Your task to perform on an android device: set default search engine in the chrome app Image 0: 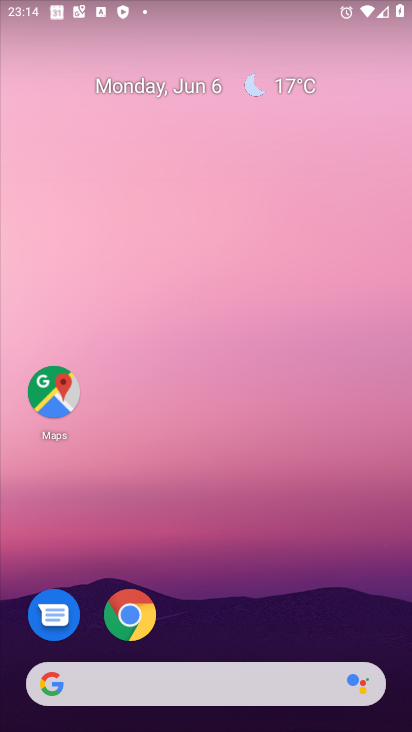
Step 0: click (119, 606)
Your task to perform on an android device: set default search engine in the chrome app Image 1: 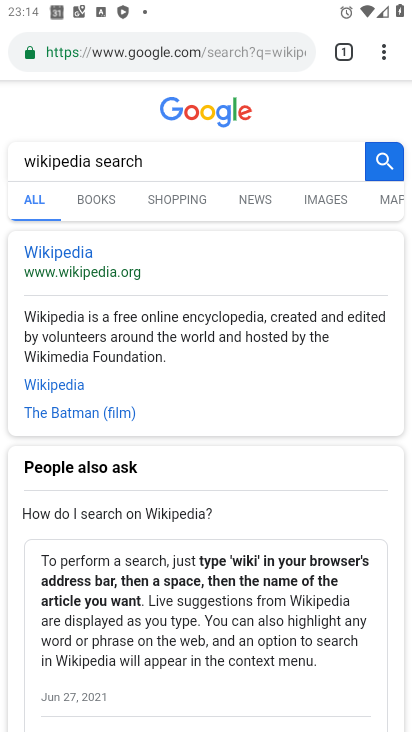
Step 1: click (379, 48)
Your task to perform on an android device: set default search engine in the chrome app Image 2: 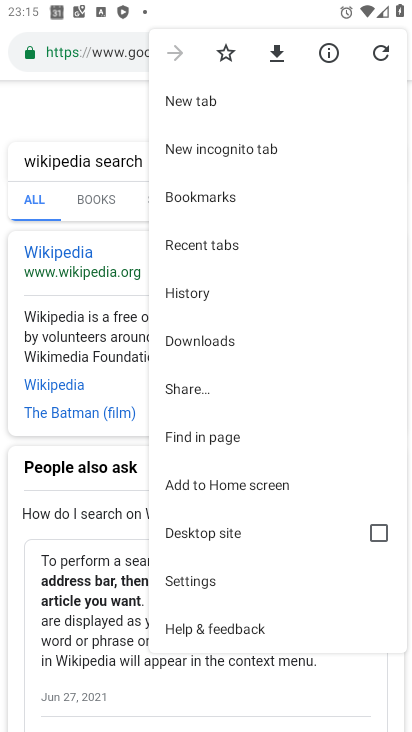
Step 2: click (207, 577)
Your task to perform on an android device: set default search engine in the chrome app Image 3: 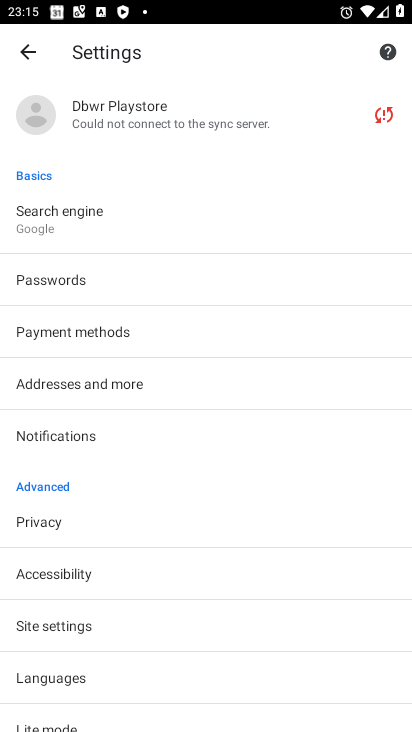
Step 3: click (70, 226)
Your task to perform on an android device: set default search engine in the chrome app Image 4: 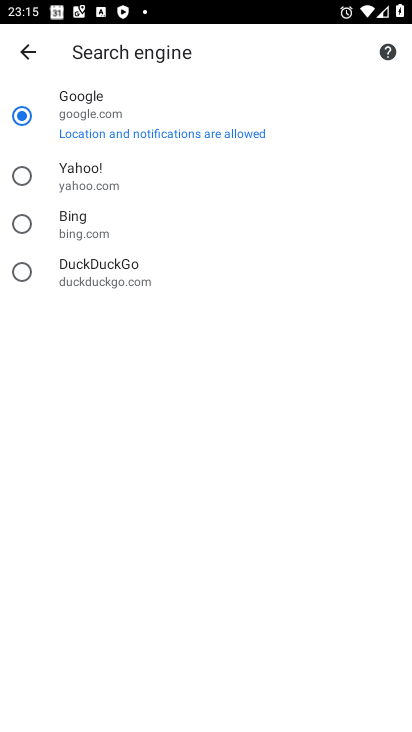
Step 4: task complete